Your task to perform on an android device: Open my contact list Image 0: 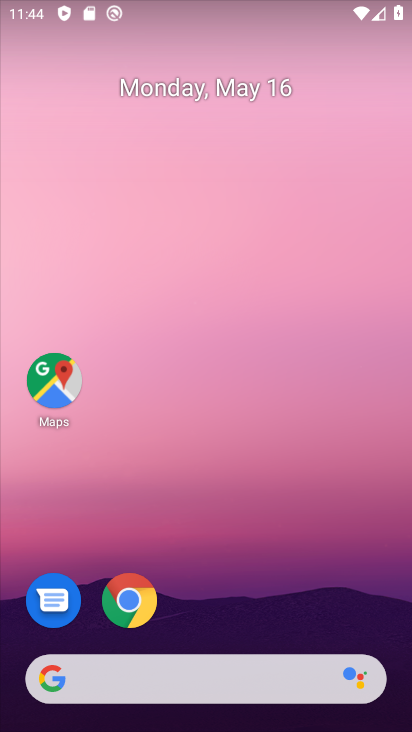
Step 0: drag from (233, 584) to (278, 16)
Your task to perform on an android device: Open my contact list Image 1: 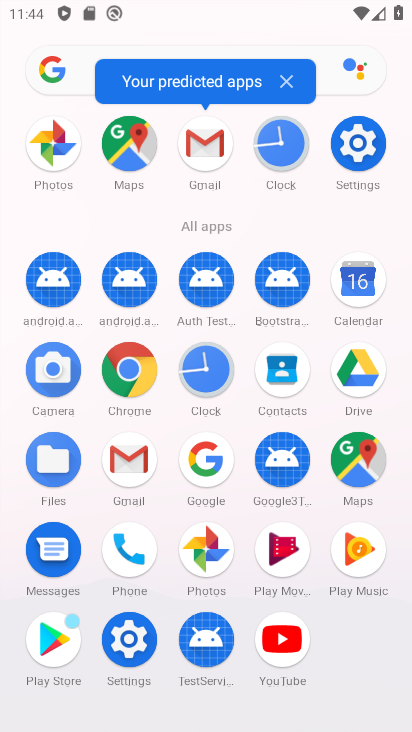
Step 1: click (282, 374)
Your task to perform on an android device: Open my contact list Image 2: 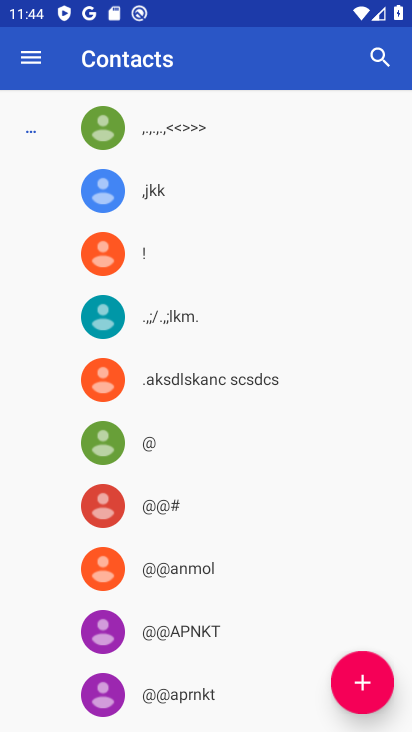
Step 2: task complete